Your task to perform on an android device: What is the news today? Image 0: 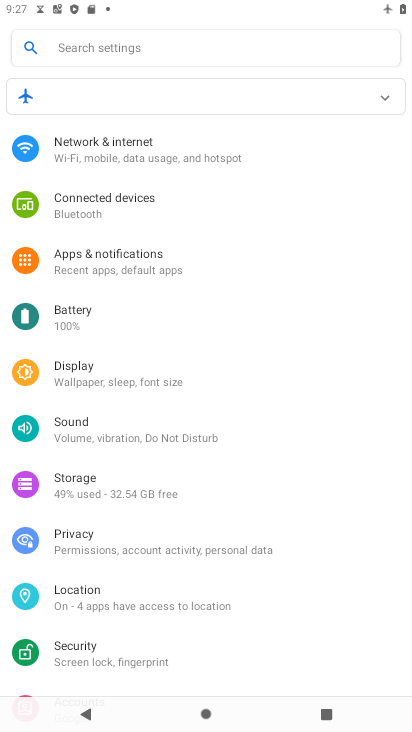
Step 0: press home button
Your task to perform on an android device: What is the news today? Image 1: 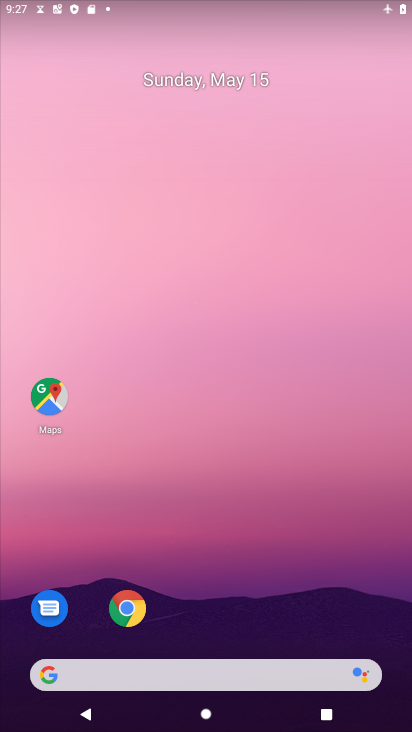
Step 1: drag from (330, 542) to (256, 27)
Your task to perform on an android device: What is the news today? Image 2: 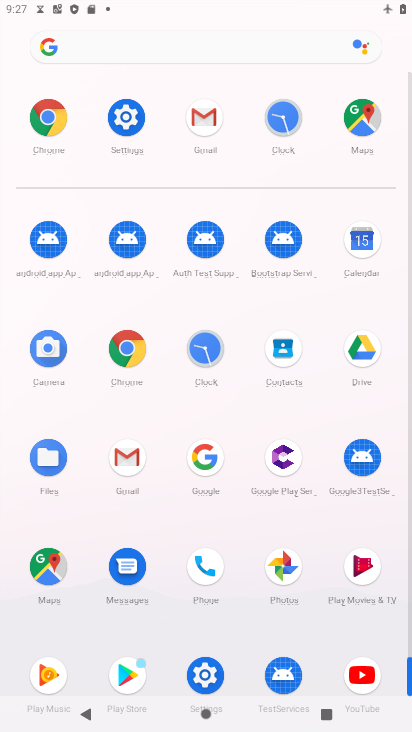
Step 2: click (42, 126)
Your task to perform on an android device: What is the news today? Image 3: 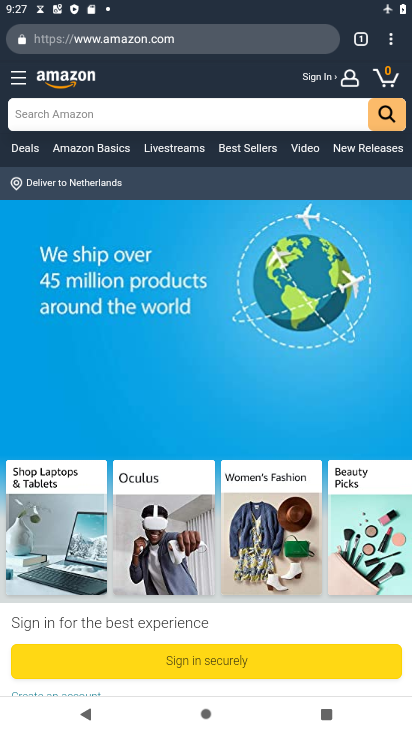
Step 3: drag from (392, 49) to (237, 89)
Your task to perform on an android device: What is the news today? Image 4: 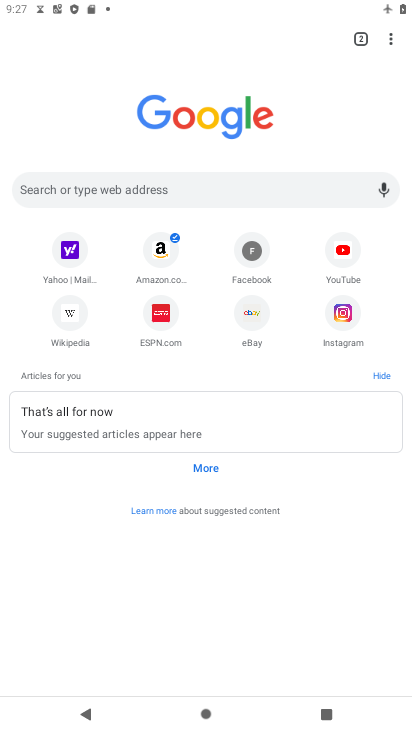
Step 4: drag from (276, 594) to (211, 163)
Your task to perform on an android device: What is the news today? Image 5: 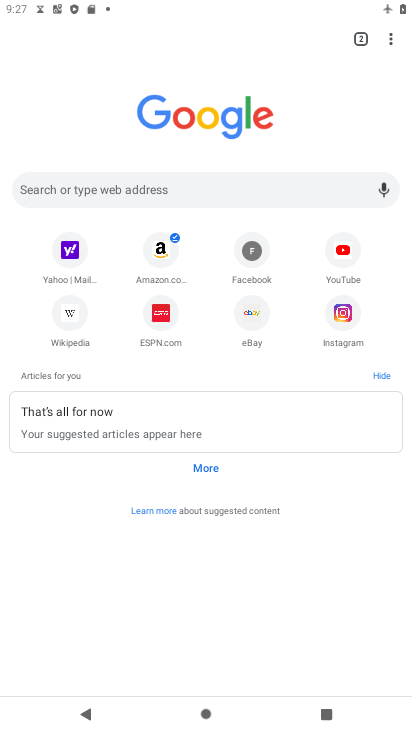
Step 5: click (204, 470)
Your task to perform on an android device: What is the news today? Image 6: 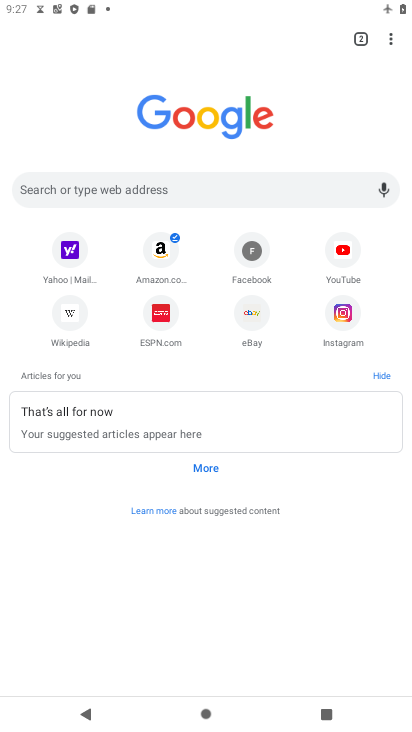
Step 6: click (208, 471)
Your task to perform on an android device: What is the news today? Image 7: 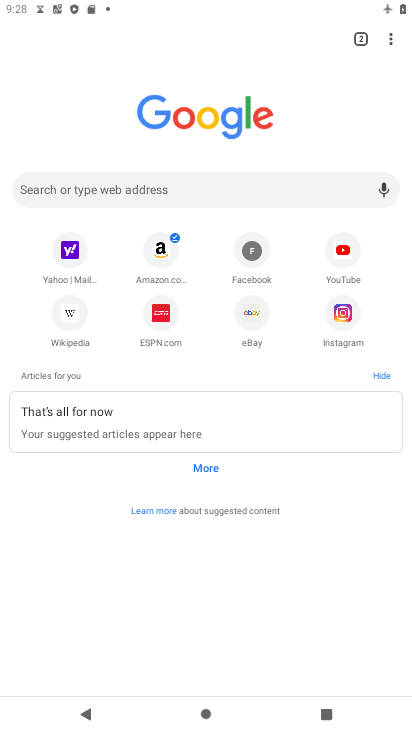
Step 7: click (208, 470)
Your task to perform on an android device: What is the news today? Image 8: 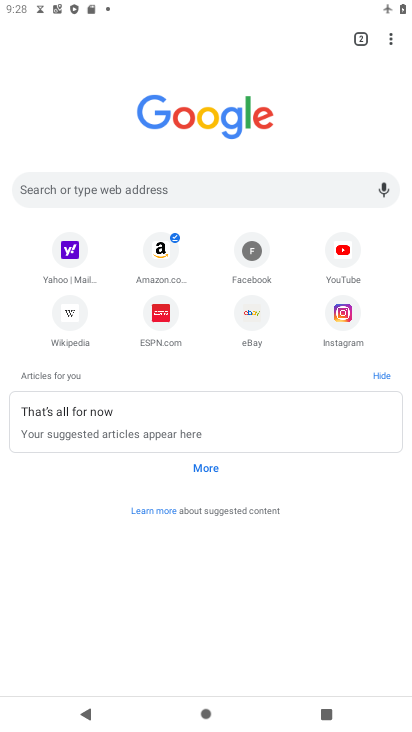
Step 8: click (209, 481)
Your task to perform on an android device: What is the news today? Image 9: 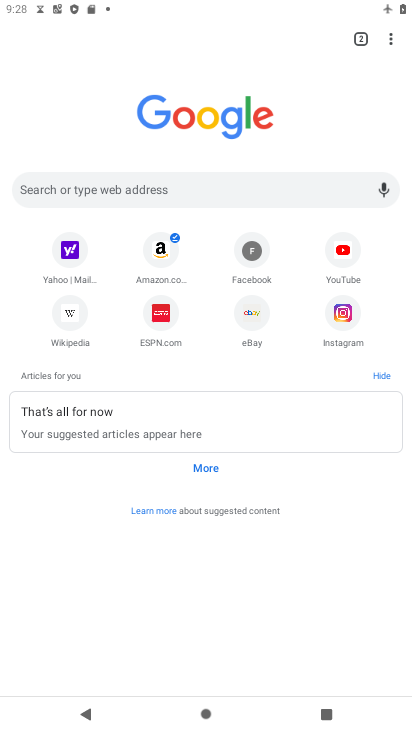
Step 9: click (206, 467)
Your task to perform on an android device: What is the news today? Image 10: 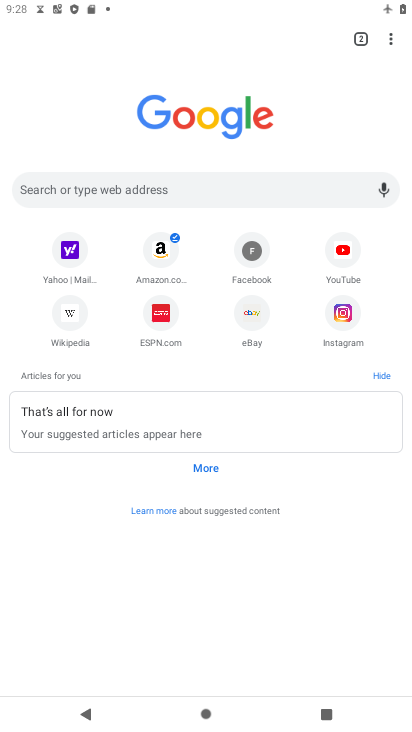
Step 10: click (206, 466)
Your task to perform on an android device: What is the news today? Image 11: 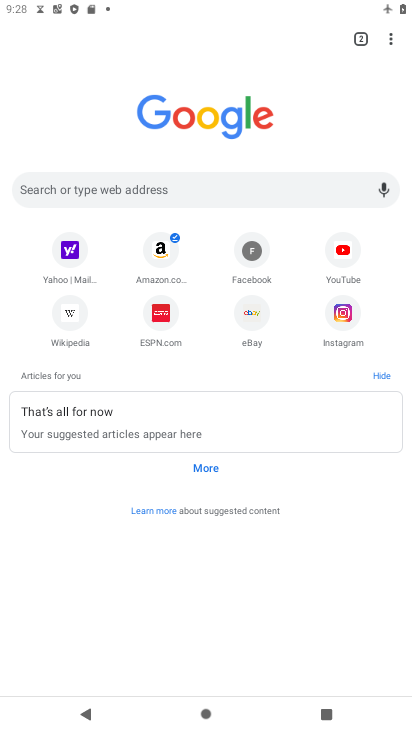
Step 11: click (156, 510)
Your task to perform on an android device: What is the news today? Image 12: 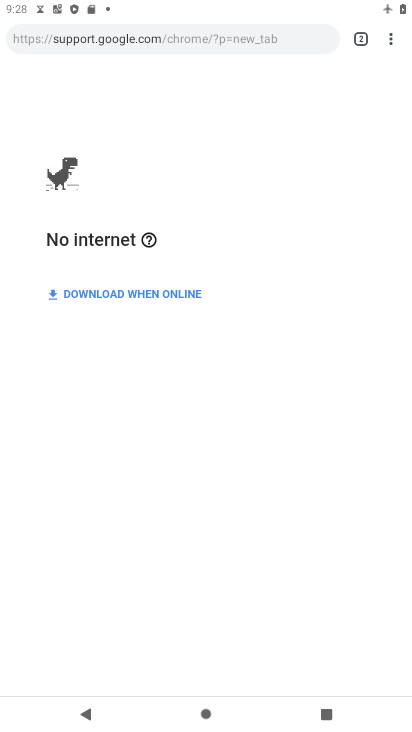
Step 12: task complete